Your task to perform on an android device: Open Google Chrome Image 0: 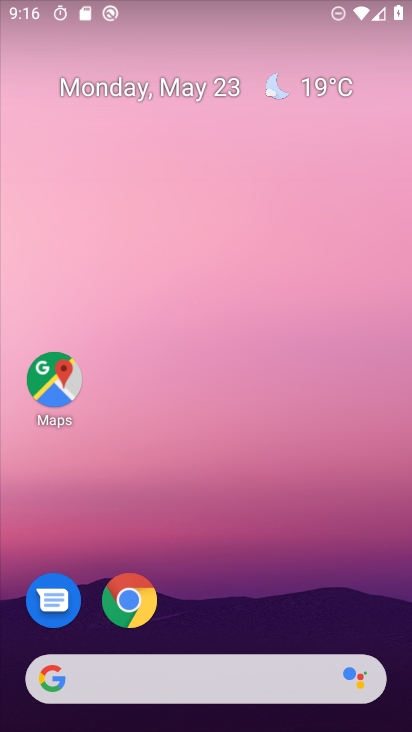
Step 0: press home button
Your task to perform on an android device: Open Google Chrome Image 1: 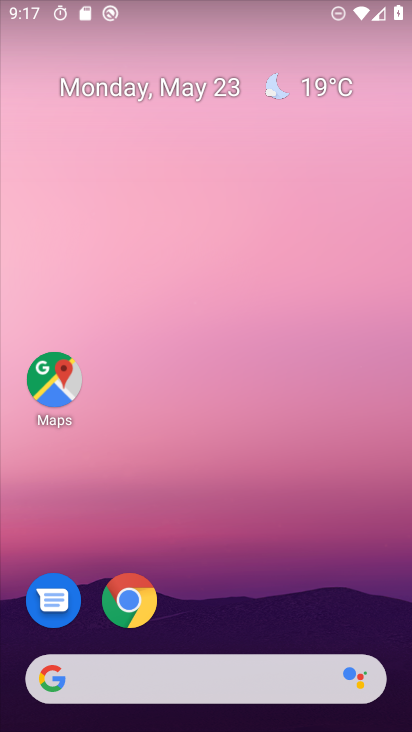
Step 1: click (131, 611)
Your task to perform on an android device: Open Google Chrome Image 2: 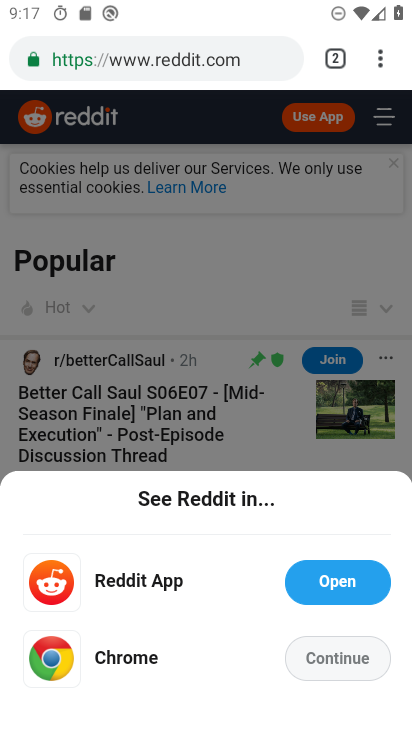
Step 2: click (278, 292)
Your task to perform on an android device: Open Google Chrome Image 3: 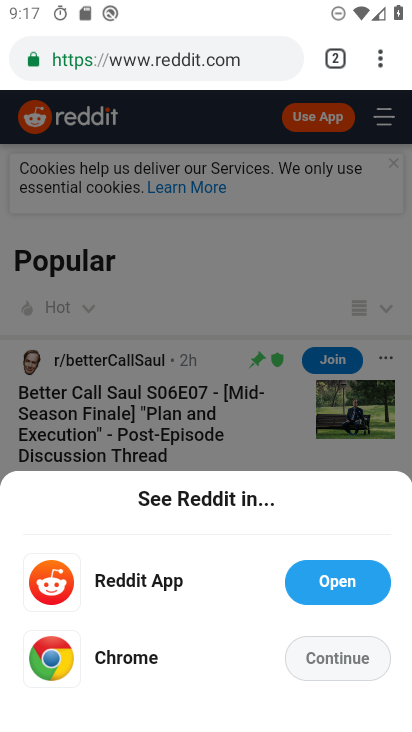
Step 3: task complete